Your task to perform on an android device: Go to Reddit.com Image 0: 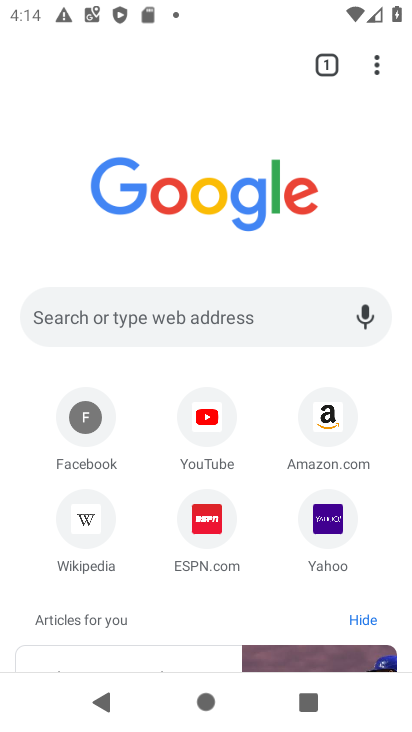
Step 0: click (271, 297)
Your task to perform on an android device: Go to Reddit.com Image 1: 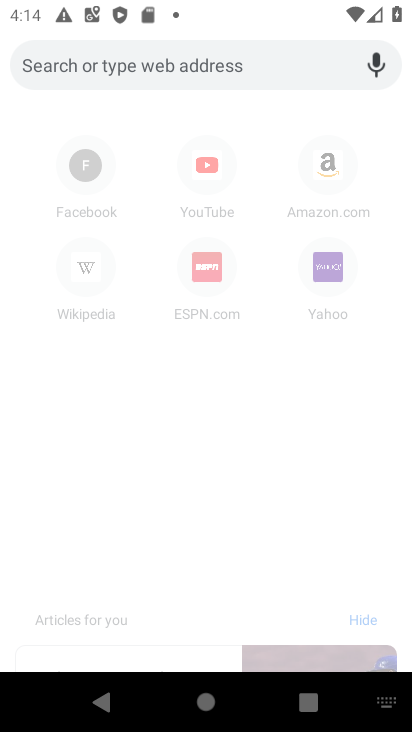
Step 1: type "reddit"
Your task to perform on an android device: Go to Reddit.com Image 2: 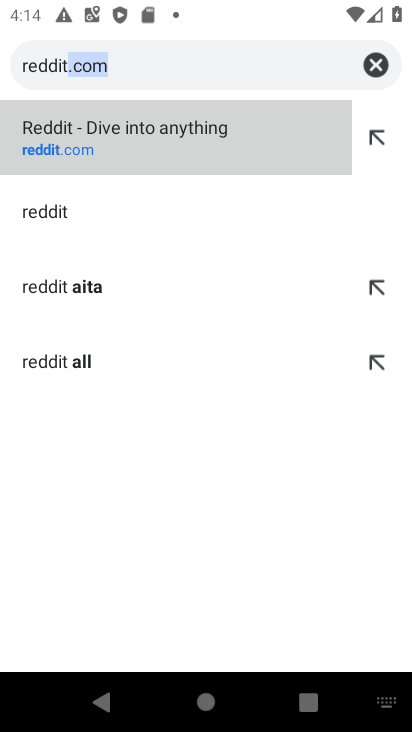
Step 2: type ""
Your task to perform on an android device: Go to Reddit.com Image 3: 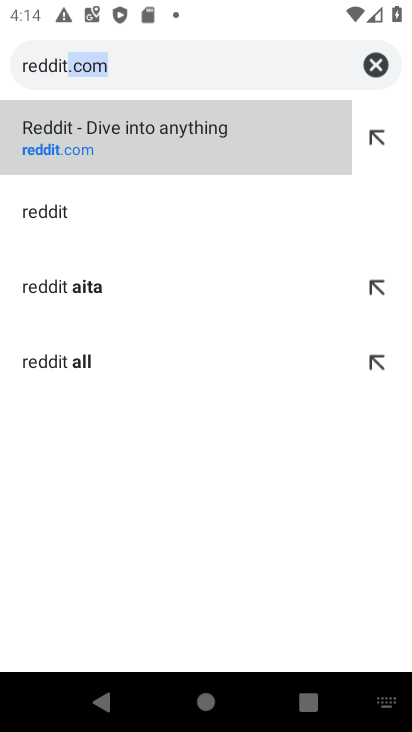
Step 3: click (248, 125)
Your task to perform on an android device: Go to Reddit.com Image 4: 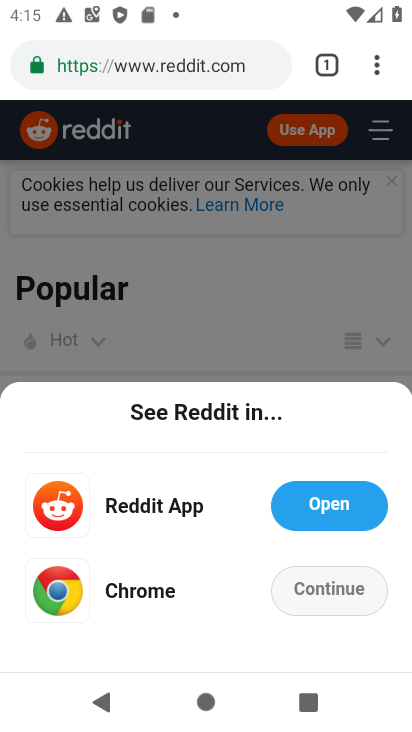
Step 4: task complete